Your task to perform on an android device: Search for sushi restaurants on Maps Image 0: 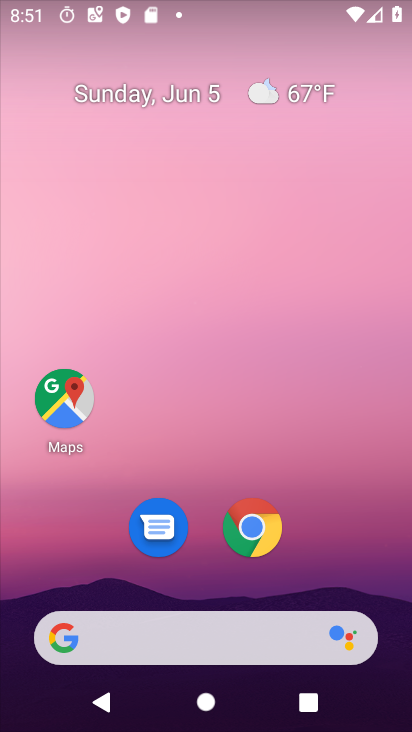
Step 0: drag from (248, 724) to (248, 0)
Your task to perform on an android device: Search for sushi restaurants on Maps Image 1: 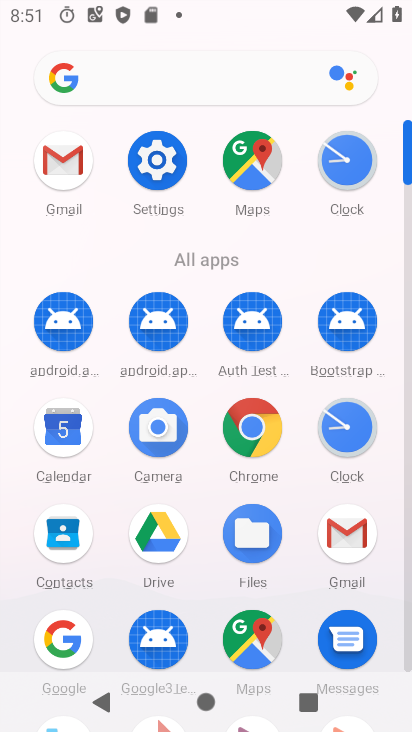
Step 1: click (261, 642)
Your task to perform on an android device: Search for sushi restaurants on Maps Image 2: 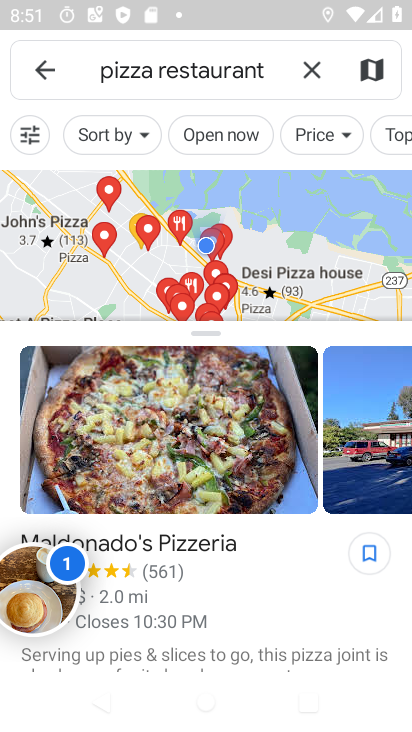
Step 2: click (315, 68)
Your task to perform on an android device: Search for sushi restaurants on Maps Image 3: 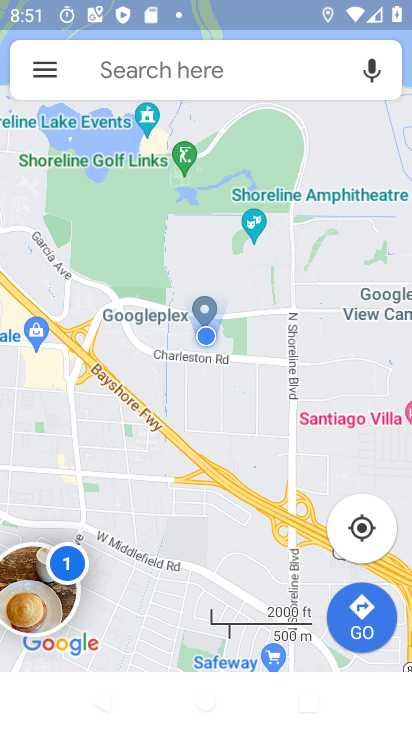
Step 3: click (197, 66)
Your task to perform on an android device: Search for sushi restaurants on Maps Image 4: 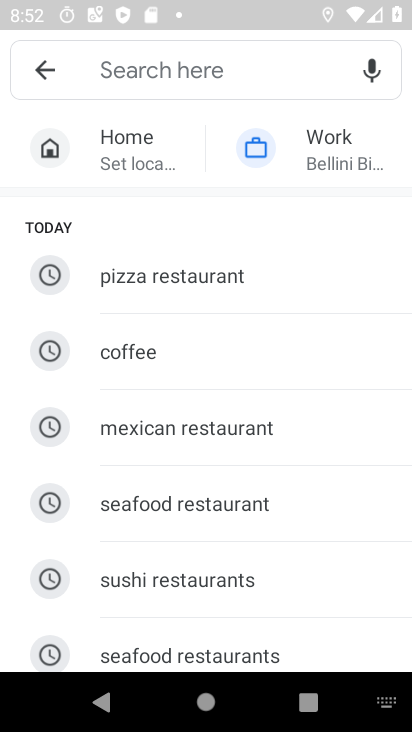
Step 4: type "sushi restaurants"
Your task to perform on an android device: Search for sushi restaurants on Maps Image 5: 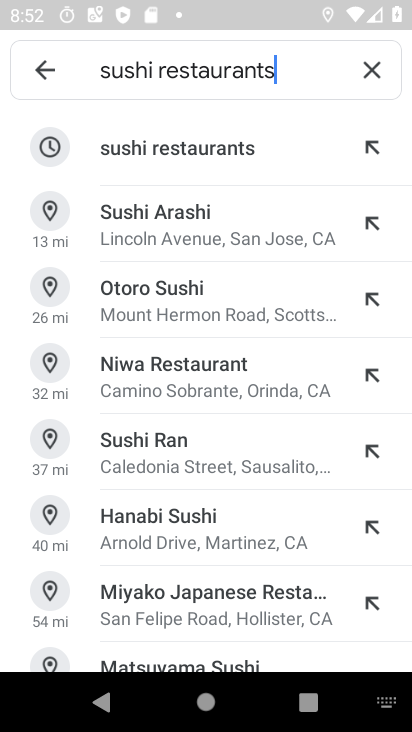
Step 5: click (164, 142)
Your task to perform on an android device: Search for sushi restaurants on Maps Image 6: 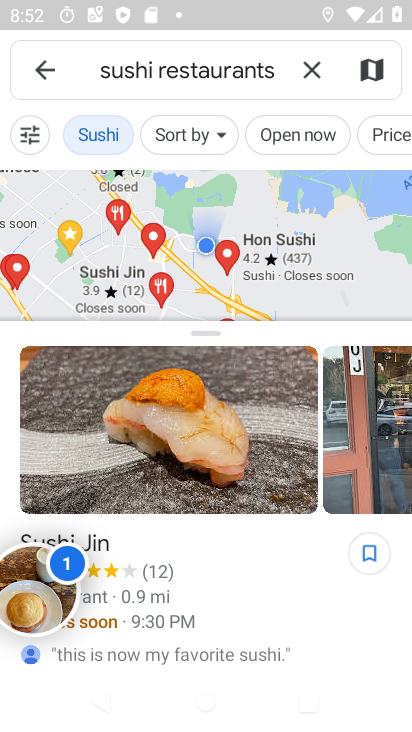
Step 6: task complete